Your task to perform on an android device: clear all cookies in the chrome app Image 0: 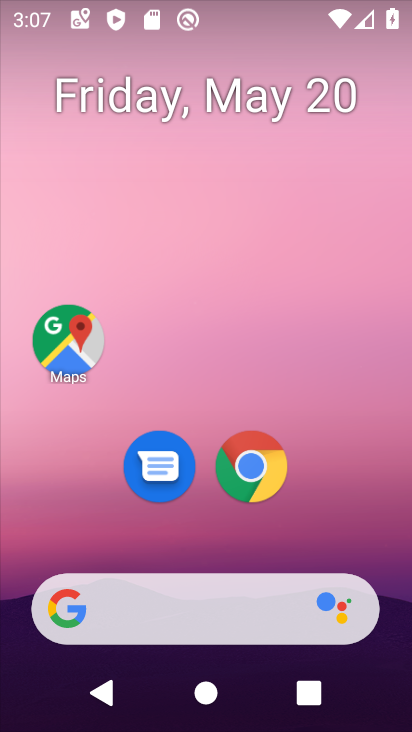
Step 0: press home button
Your task to perform on an android device: clear all cookies in the chrome app Image 1: 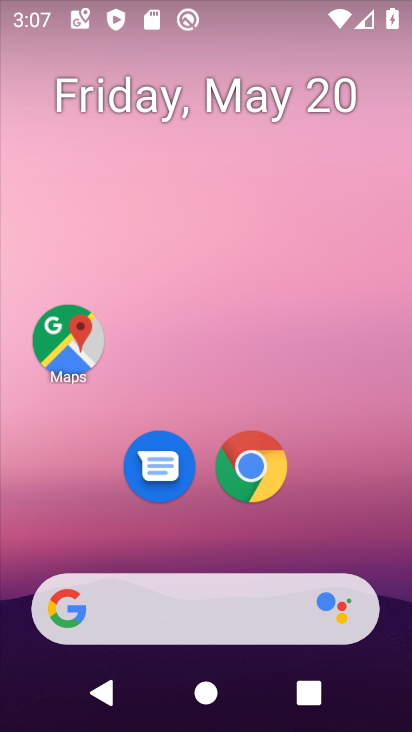
Step 1: drag from (199, 566) to (187, 179)
Your task to perform on an android device: clear all cookies in the chrome app Image 2: 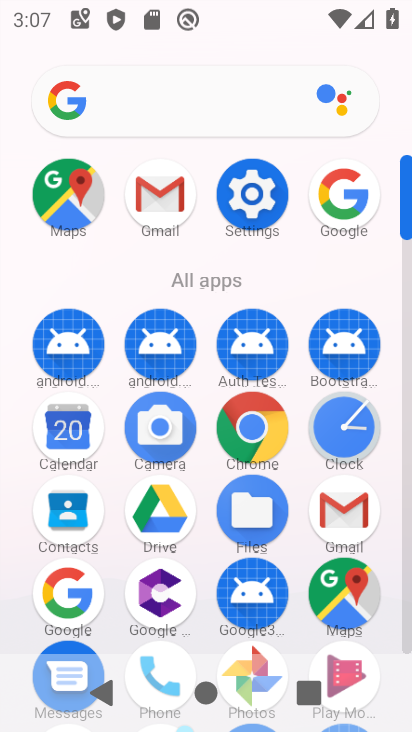
Step 2: click (254, 433)
Your task to perform on an android device: clear all cookies in the chrome app Image 3: 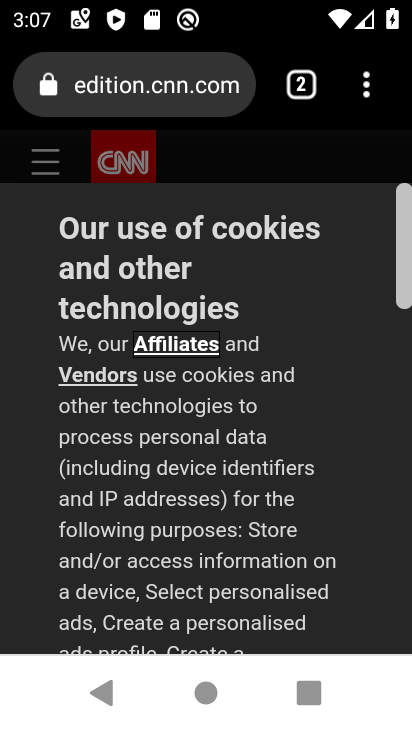
Step 3: click (364, 88)
Your task to perform on an android device: clear all cookies in the chrome app Image 4: 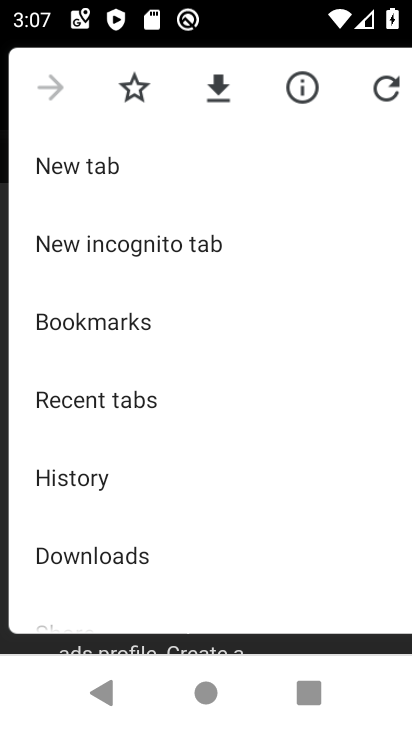
Step 4: drag from (144, 566) to (159, 227)
Your task to perform on an android device: clear all cookies in the chrome app Image 5: 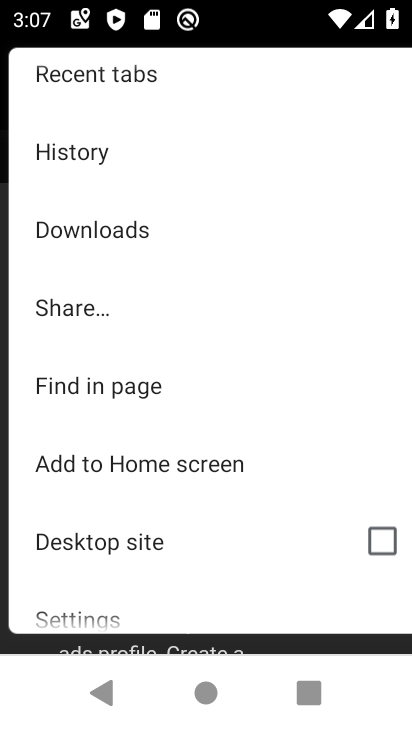
Step 5: drag from (120, 571) to (125, 301)
Your task to perform on an android device: clear all cookies in the chrome app Image 6: 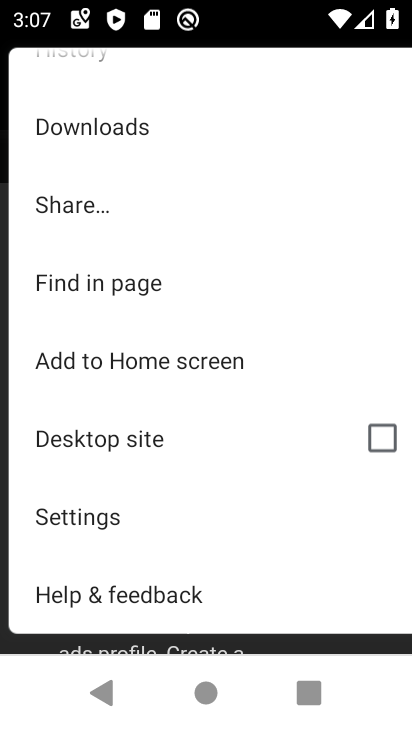
Step 6: click (75, 521)
Your task to perform on an android device: clear all cookies in the chrome app Image 7: 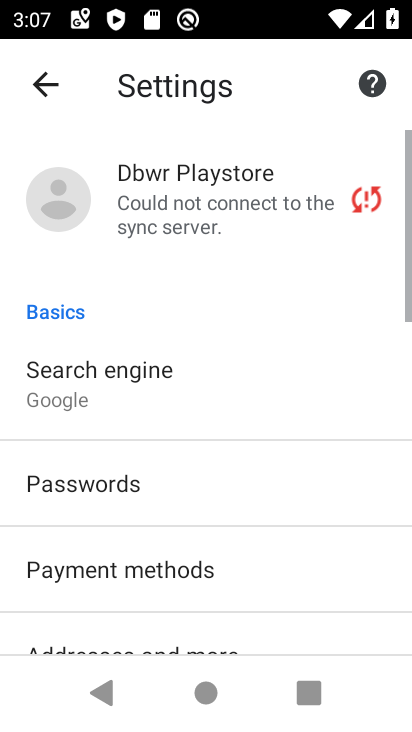
Step 7: drag from (145, 568) to (186, 185)
Your task to perform on an android device: clear all cookies in the chrome app Image 8: 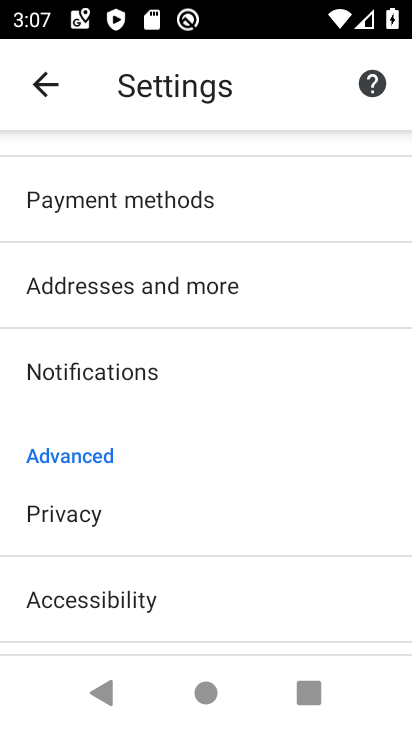
Step 8: drag from (187, 593) to (178, 344)
Your task to perform on an android device: clear all cookies in the chrome app Image 9: 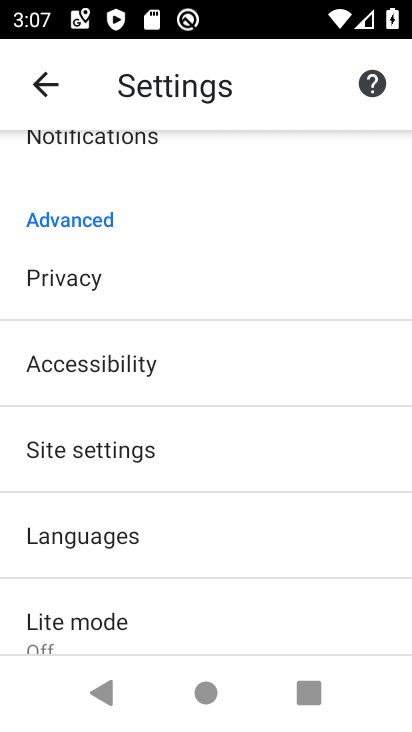
Step 9: drag from (145, 603) to (165, 289)
Your task to perform on an android device: clear all cookies in the chrome app Image 10: 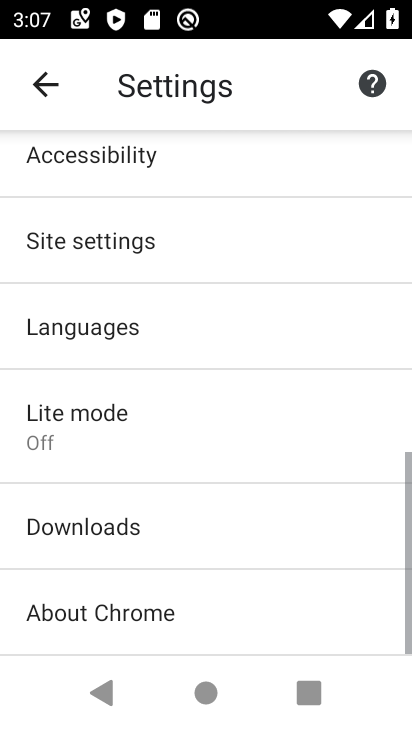
Step 10: drag from (132, 585) to (154, 324)
Your task to perform on an android device: clear all cookies in the chrome app Image 11: 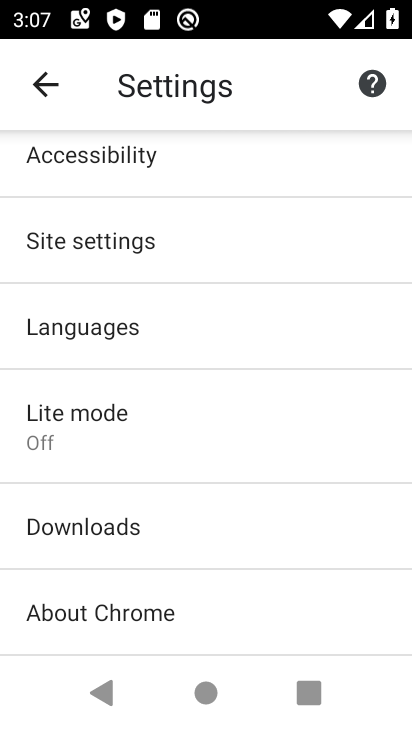
Step 11: drag from (81, 201) to (113, 532)
Your task to perform on an android device: clear all cookies in the chrome app Image 12: 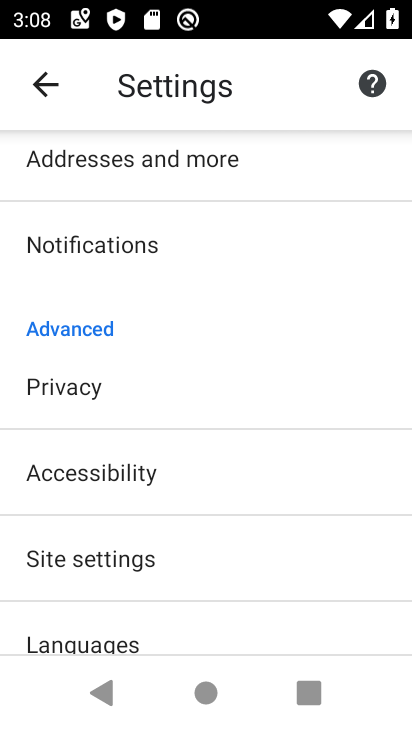
Step 12: click (76, 390)
Your task to perform on an android device: clear all cookies in the chrome app Image 13: 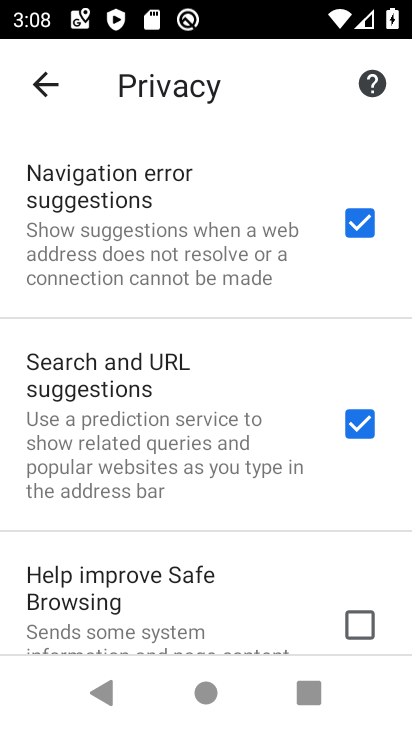
Step 13: drag from (189, 601) to (184, 266)
Your task to perform on an android device: clear all cookies in the chrome app Image 14: 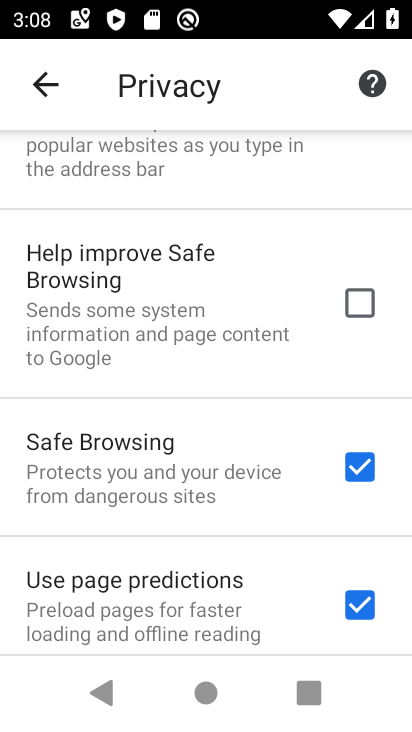
Step 14: drag from (218, 626) to (213, 284)
Your task to perform on an android device: clear all cookies in the chrome app Image 15: 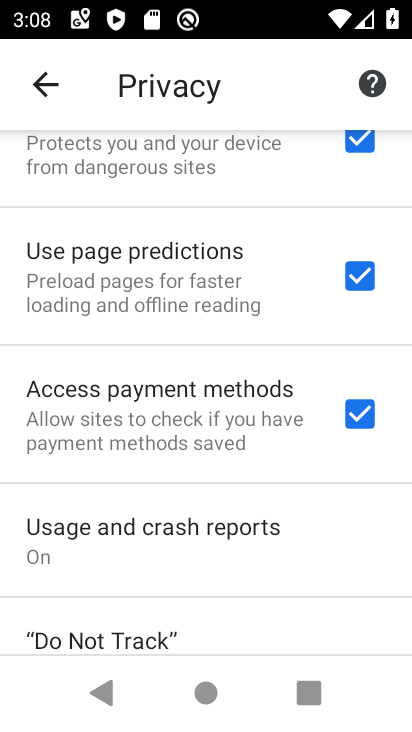
Step 15: drag from (139, 505) to (139, 278)
Your task to perform on an android device: clear all cookies in the chrome app Image 16: 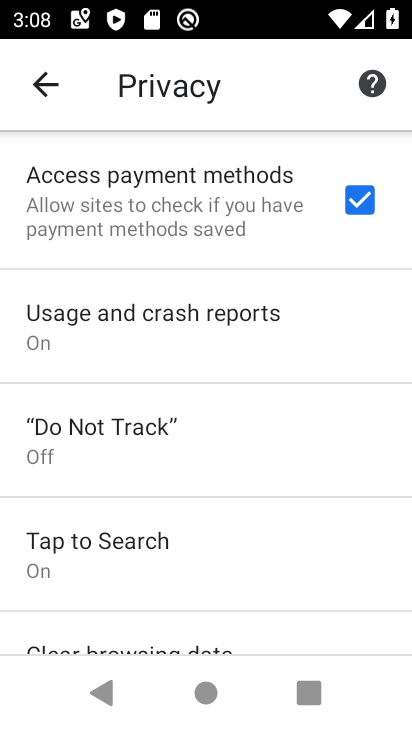
Step 16: drag from (111, 584) to (111, 295)
Your task to perform on an android device: clear all cookies in the chrome app Image 17: 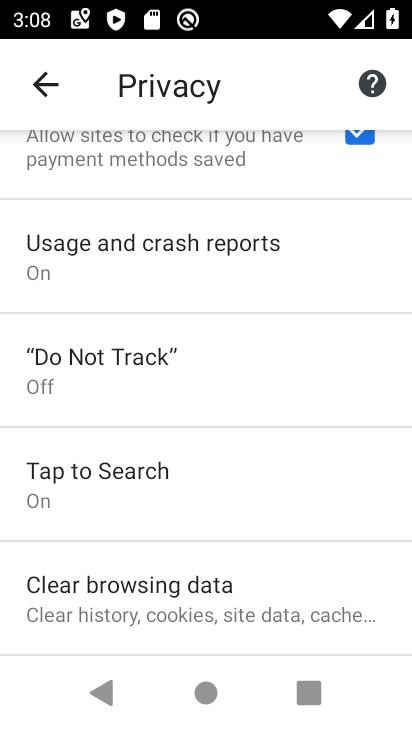
Step 17: click (86, 587)
Your task to perform on an android device: clear all cookies in the chrome app Image 18: 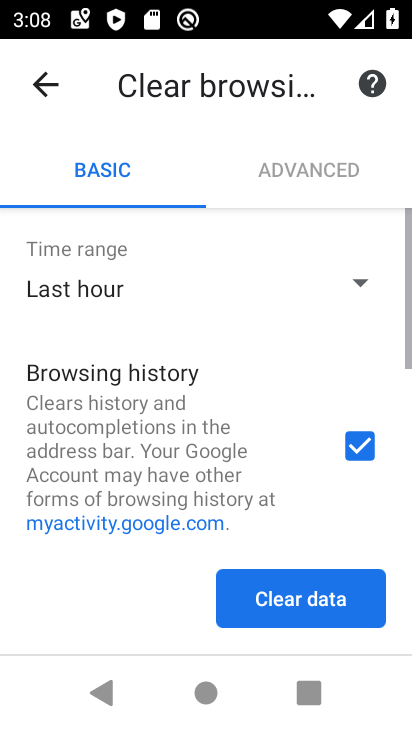
Step 18: drag from (297, 530) to (306, 262)
Your task to perform on an android device: clear all cookies in the chrome app Image 19: 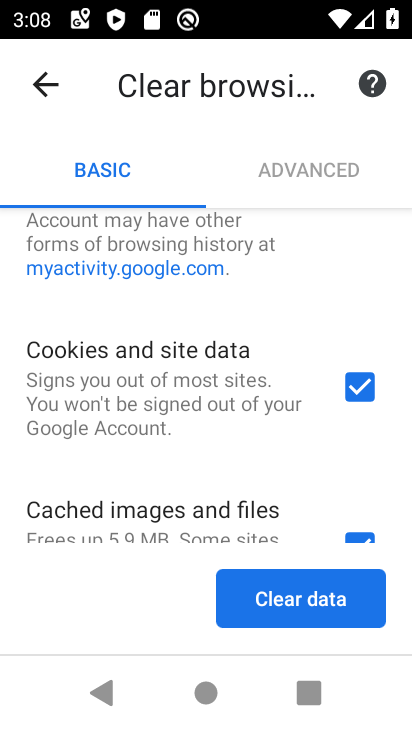
Step 19: click (366, 540)
Your task to perform on an android device: clear all cookies in the chrome app Image 20: 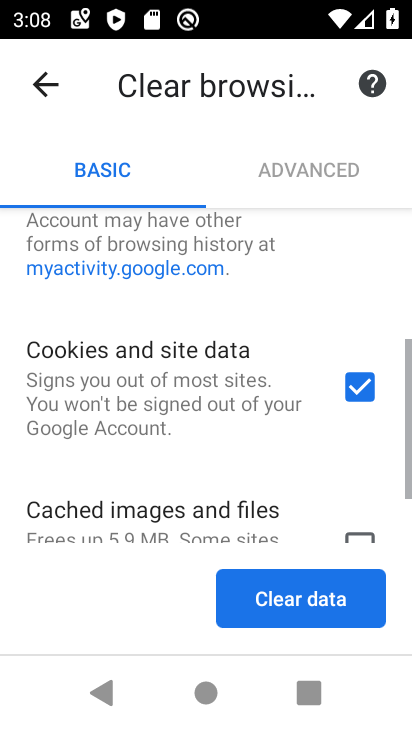
Step 20: drag from (269, 254) to (305, 484)
Your task to perform on an android device: clear all cookies in the chrome app Image 21: 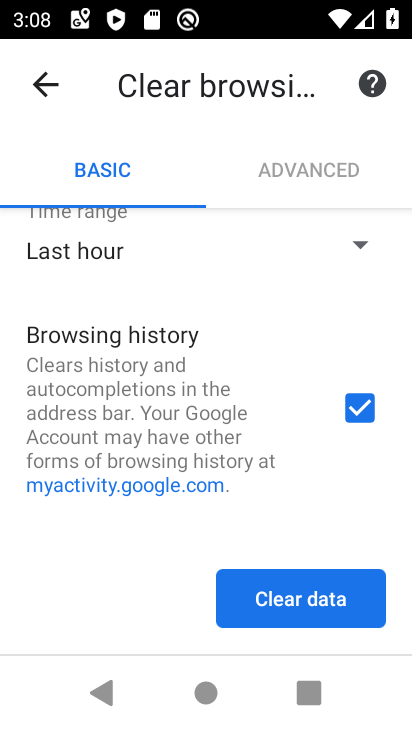
Step 21: click (356, 410)
Your task to perform on an android device: clear all cookies in the chrome app Image 22: 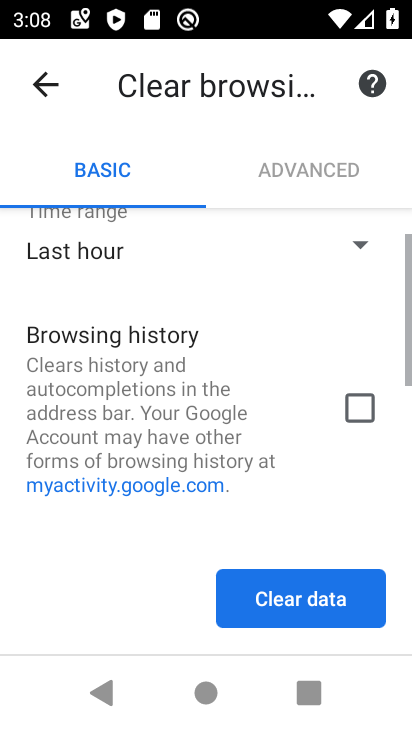
Step 22: drag from (215, 507) to (226, 222)
Your task to perform on an android device: clear all cookies in the chrome app Image 23: 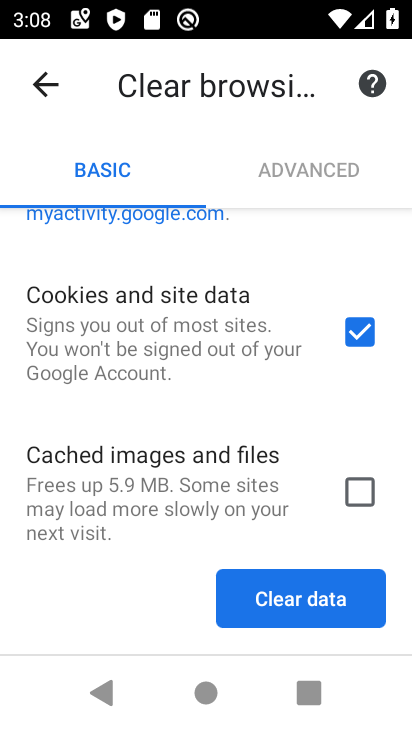
Step 23: click (301, 603)
Your task to perform on an android device: clear all cookies in the chrome app Image 24: 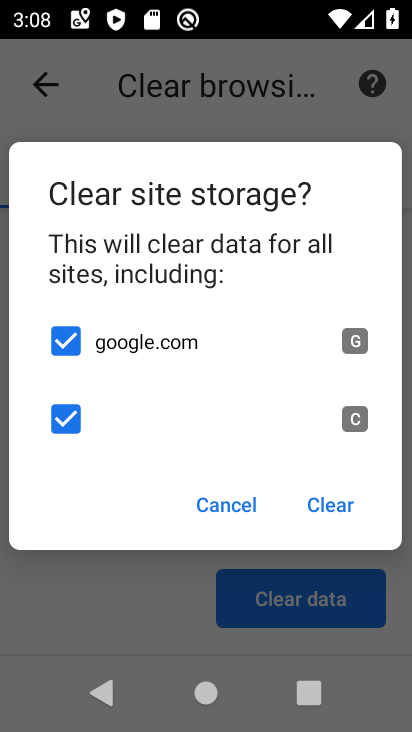
Step 24: click (314, 516)
Your task to perform on an android device: clear all cookies in the chrome app Image 25: 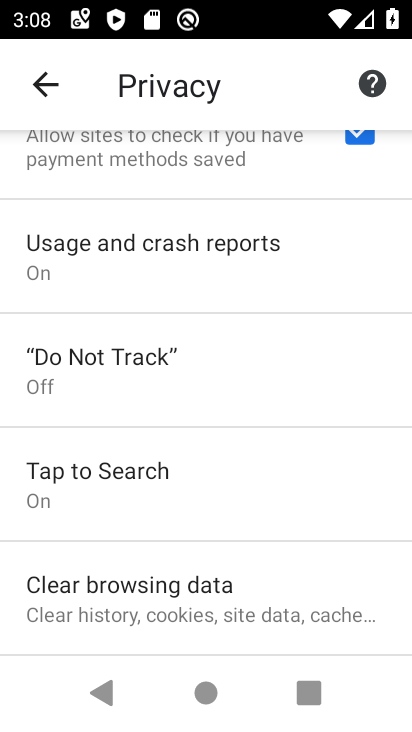
Step 25: task complete